Your task to perform on an android device: change notification settings in the gmail app Image 0: 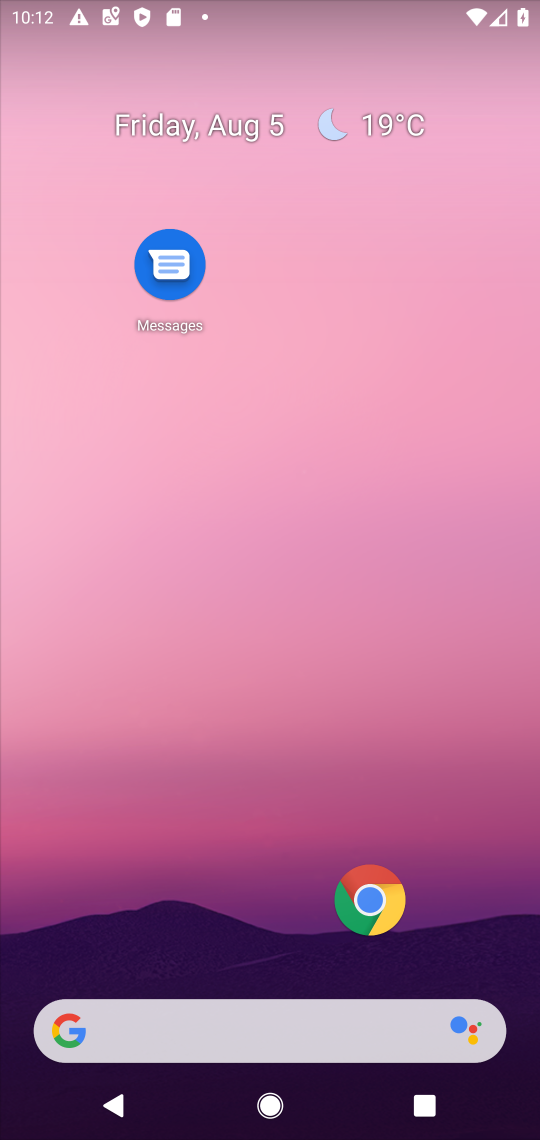
Step 0: drag from (288, 924) to (265, 89)
Your task to perform on an android device: change notification settings in the gmail app Image 1: 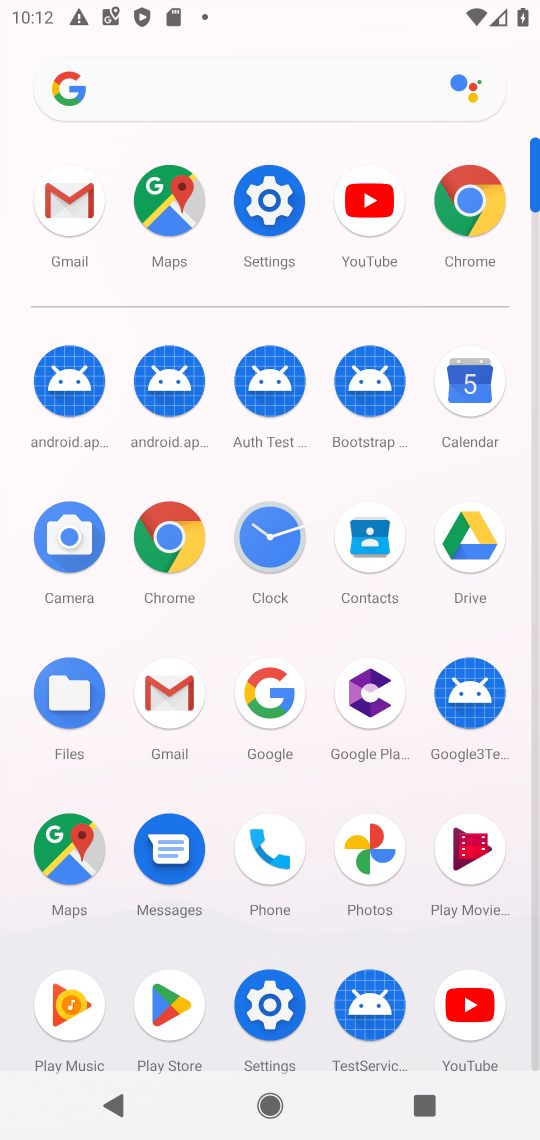
Step 1: click (176, 693)
Your task to perform on an android device: change notification settings in the gmail app Image 2: 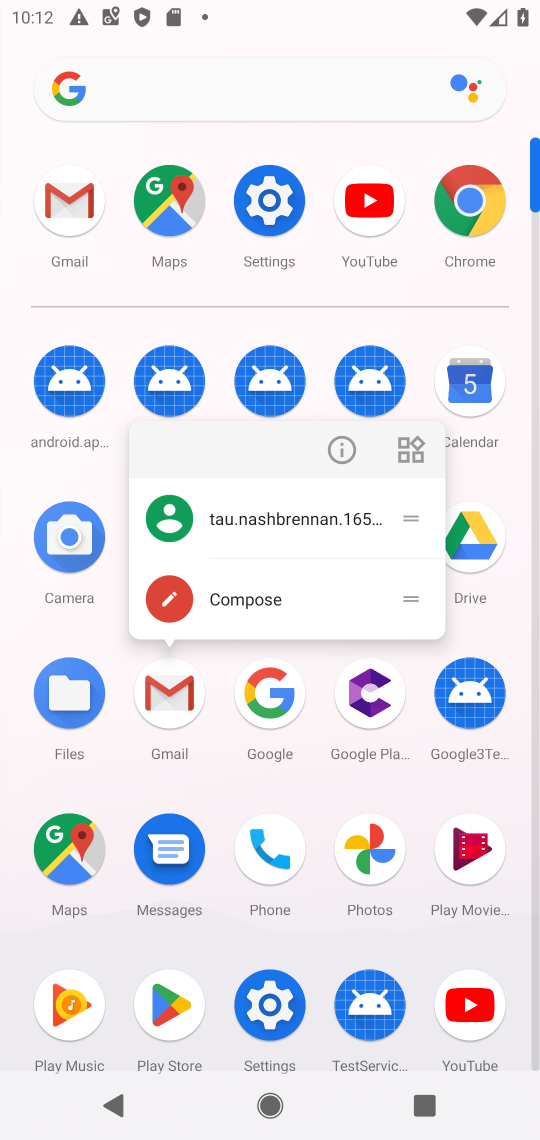
Step 2: click (334, 449)
Your task to perform on an android device: change notification settings in the gmail app Image 3: 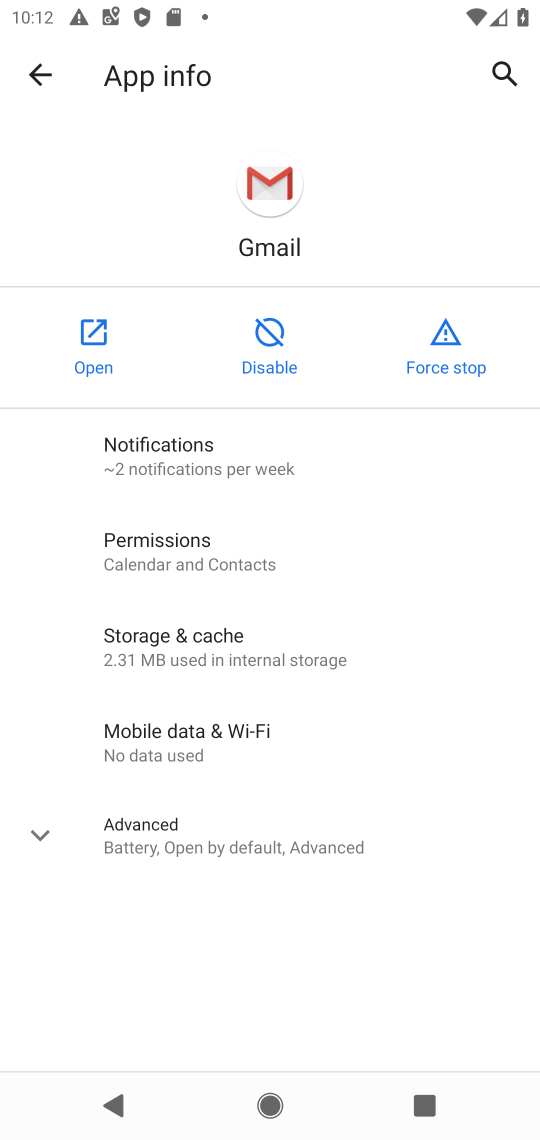
Step 3: click (246, 473)
Your task to perform on an android device: change notification settings in the gmail app Image 4: 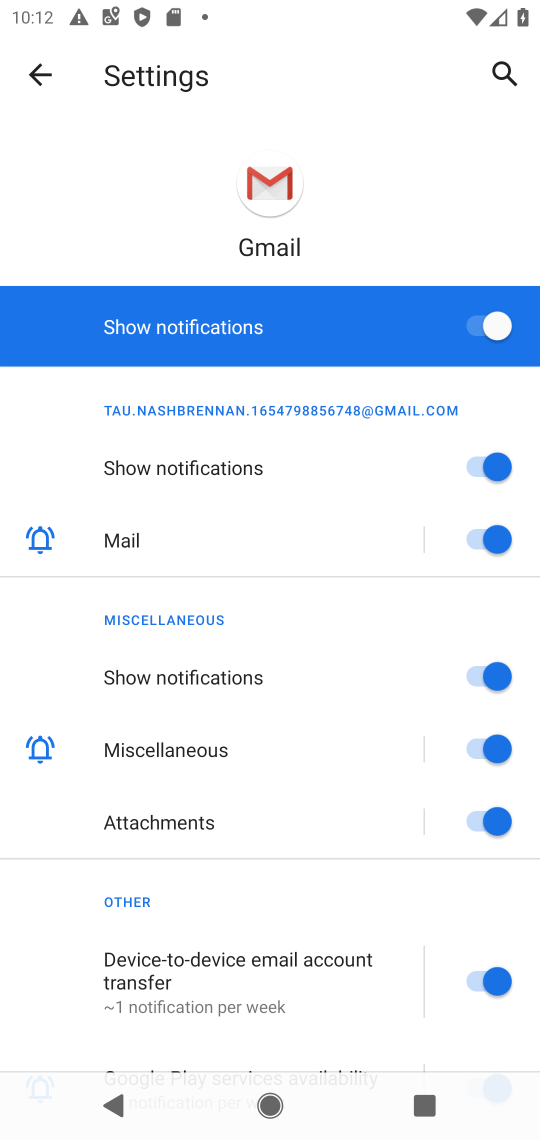
Step 4: click (410, 312)
Your task to perform on an android device: change notification settings in the gmail app Image 5: 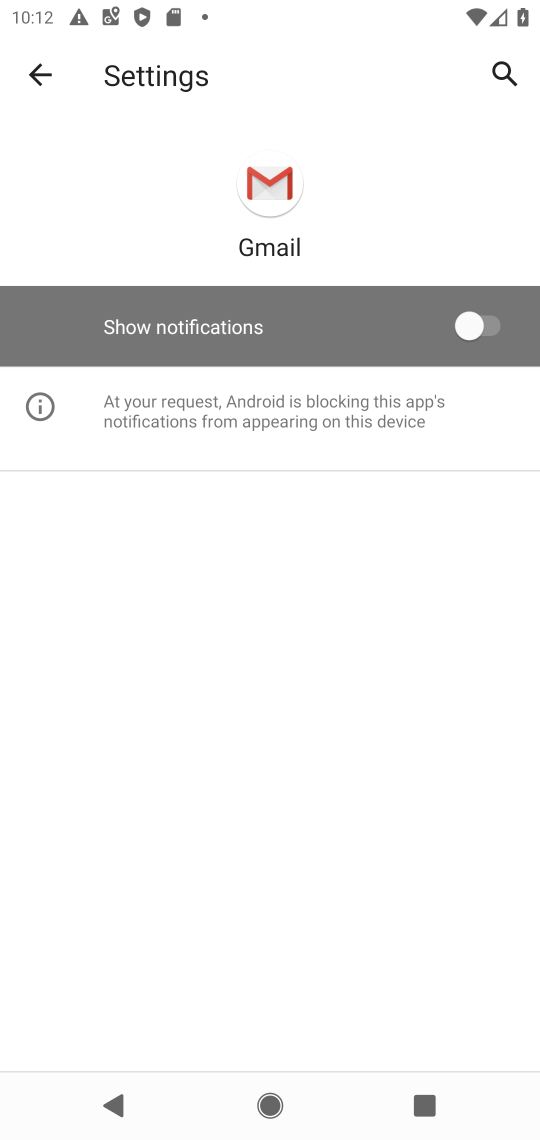
Step 5: task complete